Your task to perform on an android device: See recent photos Image 0: 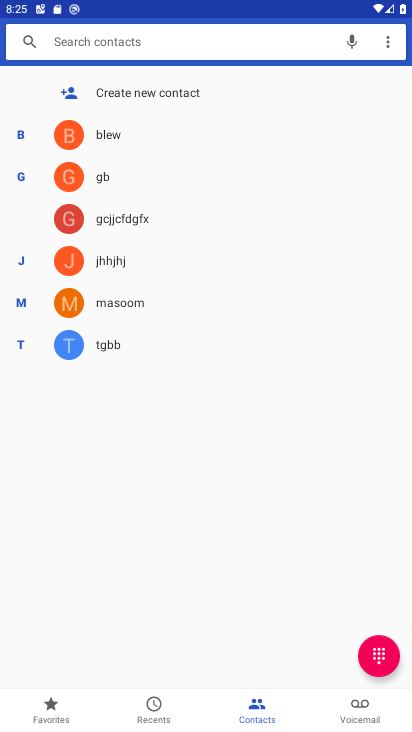
Step 0: press home button
Your task to perform on an android device: See recent photos Image 1: 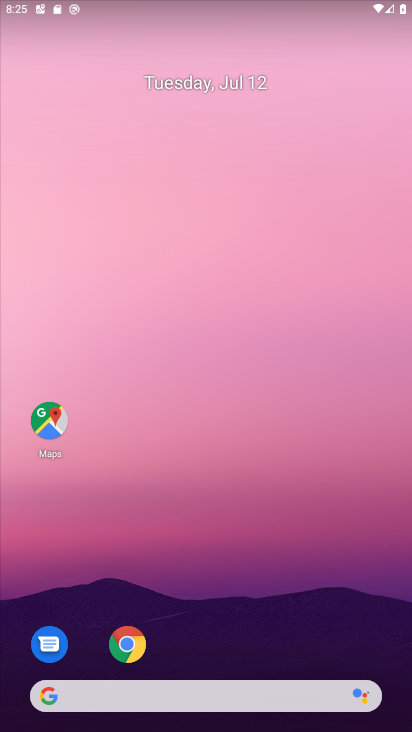
Step 1: drag from (261, 618) to (196, 225)
Your task to perform on an android device: See recent photos Image 2: 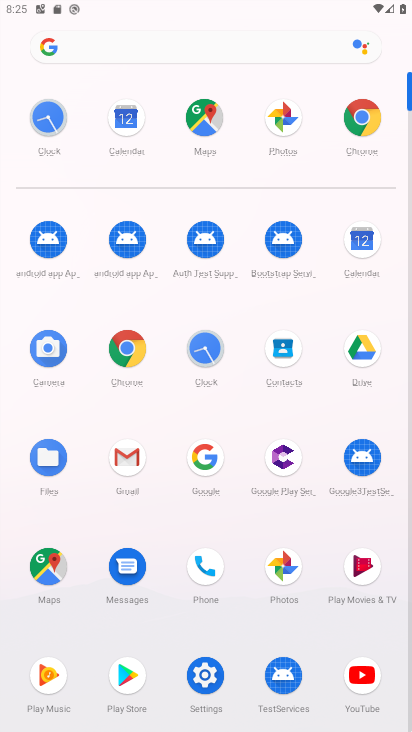
Step 2: click (289, 110)
Your task to perform on an android device: See recent photos Image 3: 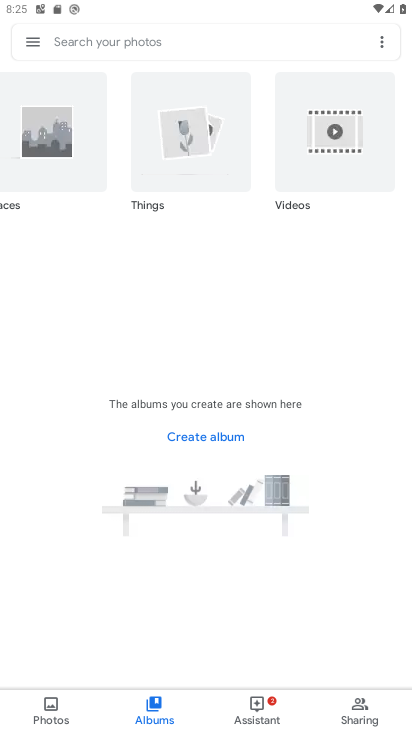
Step 3: click (53, 706)
Your task to perform on an android device: See recent photos Image 4: 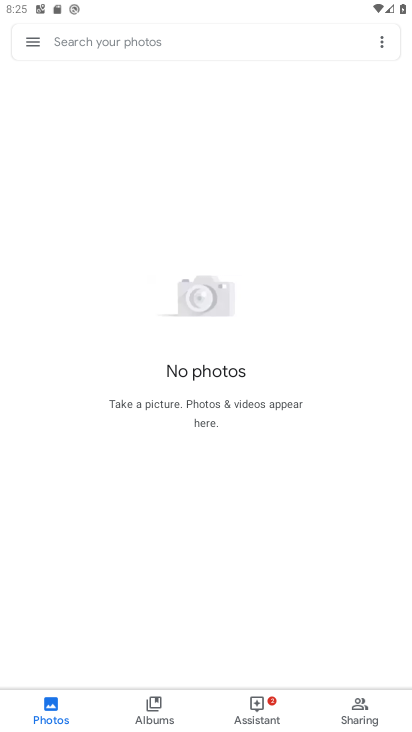
Step 4: task complete